Your task to perform on an android device: toggle pop-ups in chrome Image 0: 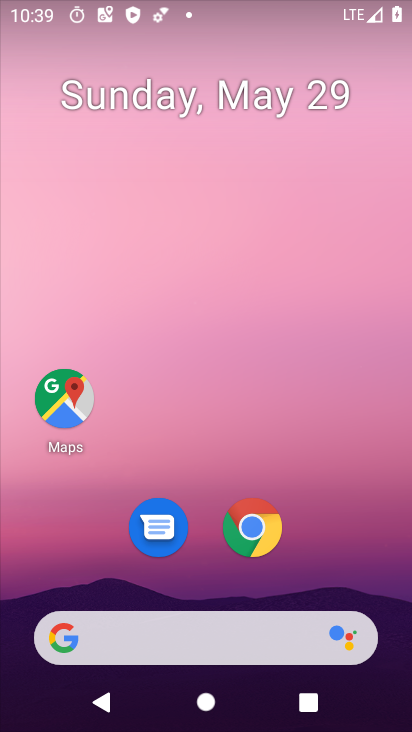
Step 0: click (257, 523)
Your task to perform on an android device: toggle pop-ups in chrome Image 1: 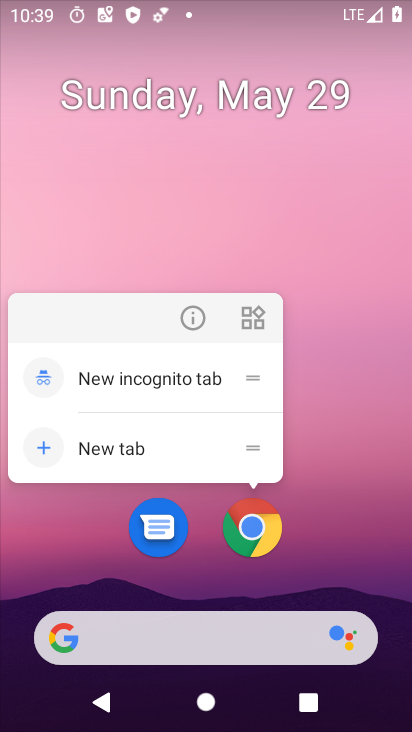
Step 1: click (260, 522)
Your task to perform on an android device: toggle pop-ups in chrome Image 2: 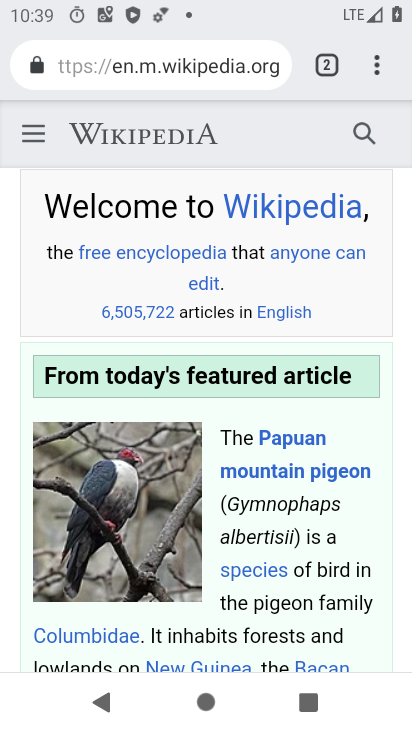
Step 2: click (388, 64)
Your task to perform on an android device: toggle pop-ups in chrome Image 3: 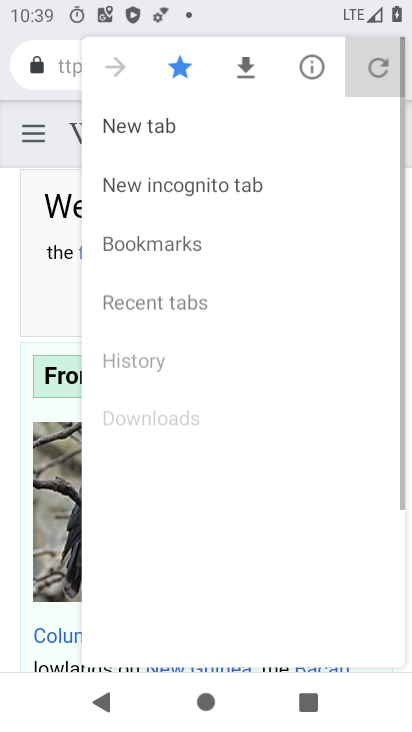
Step 3: drag from (328, 214) to (284, 159)
Your task to perform on an android device: toggle pop-ups in chrome Image 4: 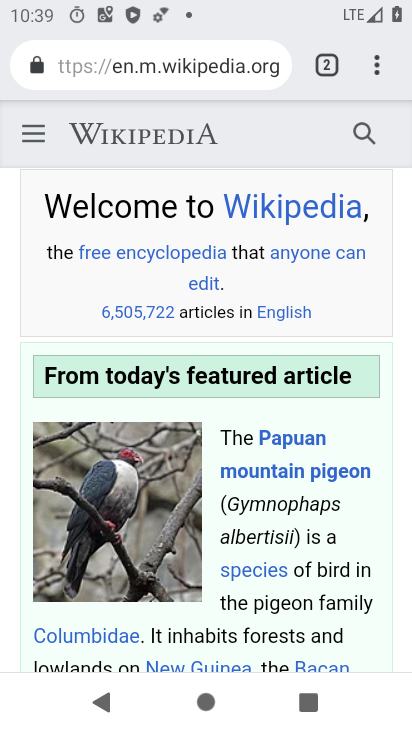
Step 4: drag from (370, 58) to (238, 582)
Your task to perform on an android device: toggle pop-ups in chrome Image 5: 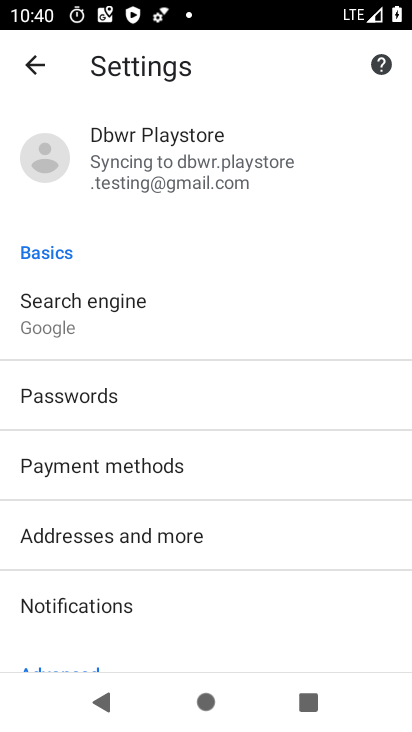
Step 5: drag from (246, 530) to (299, 104)
Your task to perform on an android device: toggle pop-ups in chrome Image 6: 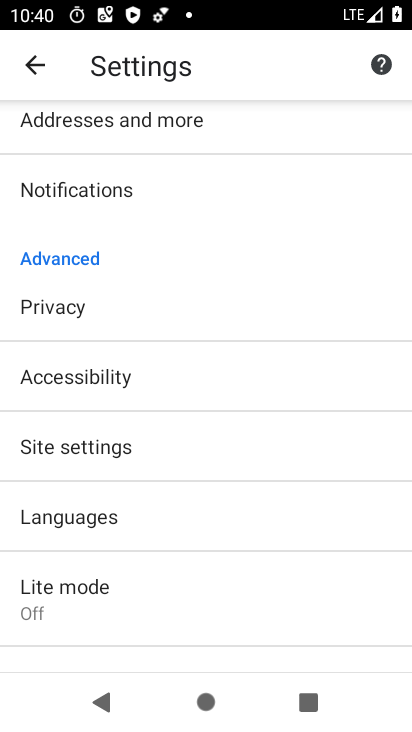
Step 6: click (161, 448)
Your task to perform on an android device: toggle pop-ups in chrome Image 7: 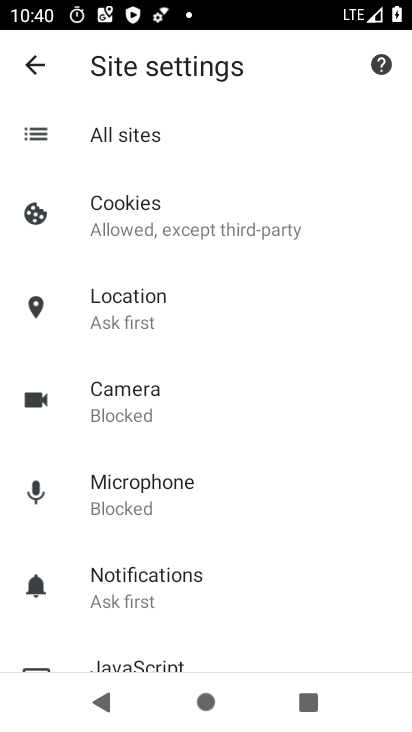
Step 7: drag from (274, 485) to (286, 245)
Your task to perform on an android device: toggle pop-ups in chrome Image 8: 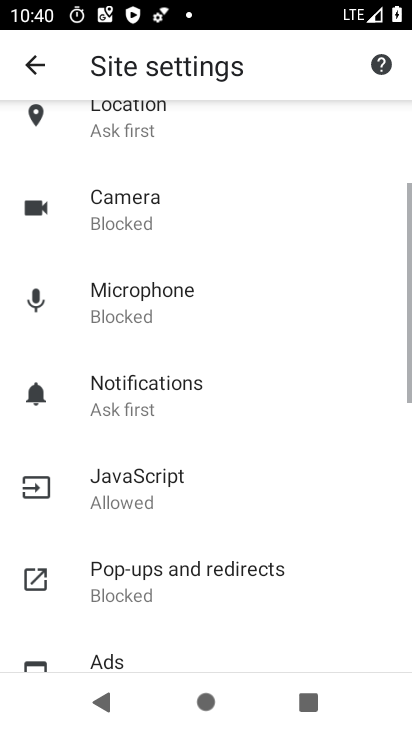
Step 8: click (298, 154)
Your task to perform on an android device: toggle pop-ups in chrome Image 9: 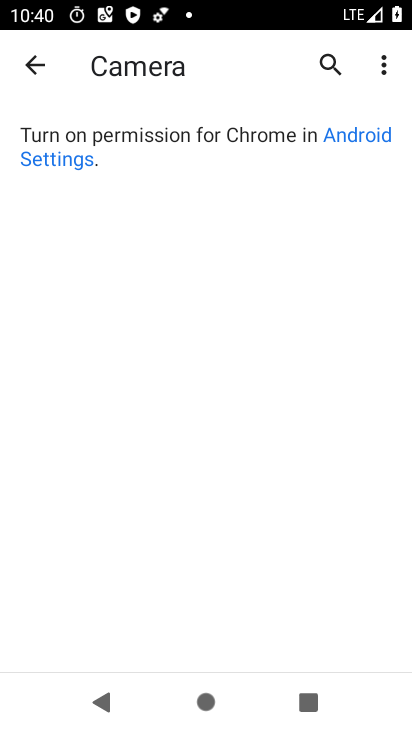
Step 9: click (41, 71)
Your task to perform on an android device: toggle pop-ups in chrome Image 10: 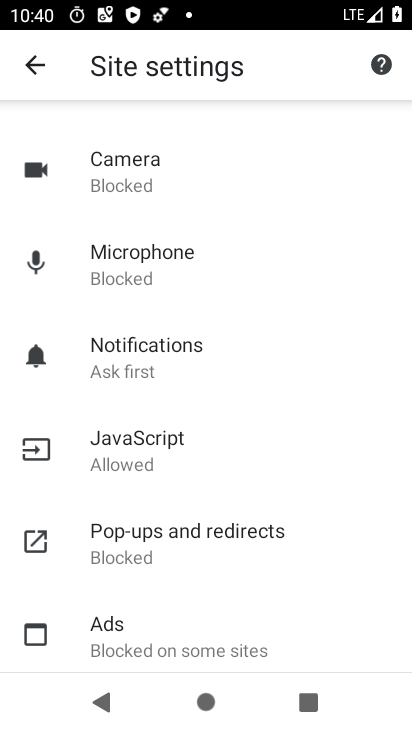
Step 10: click (181, 539)
Your task to perform on an android device: toggle pop-ups in chrome Image 11: 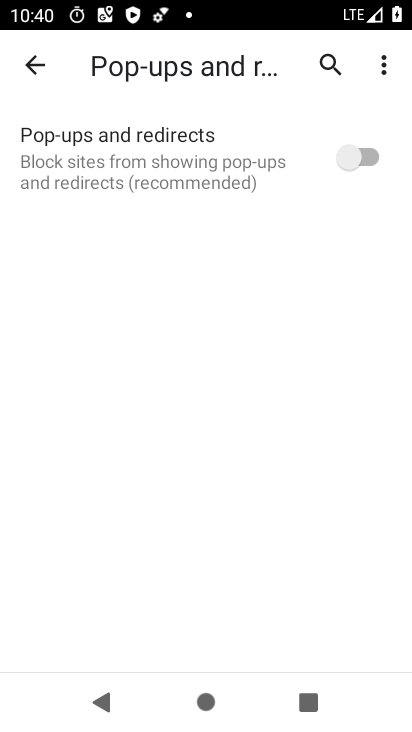
Step 11: click (359, 140)
Your task to perform on an android device: toggle pop-ups in chrome Image 12: 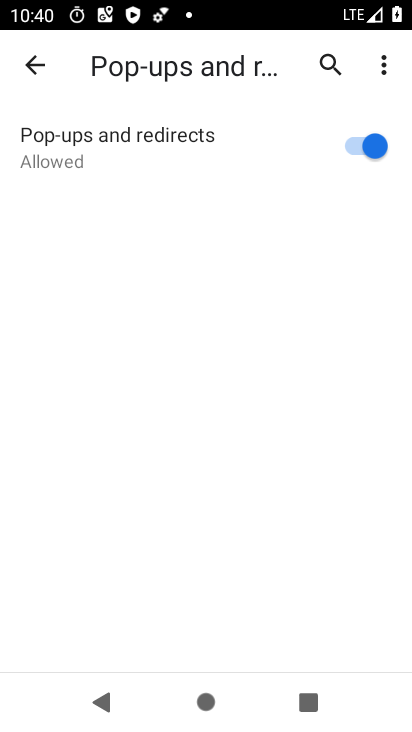
Step 12: task complete